Your task to perform on an android device: check android version Image 0: 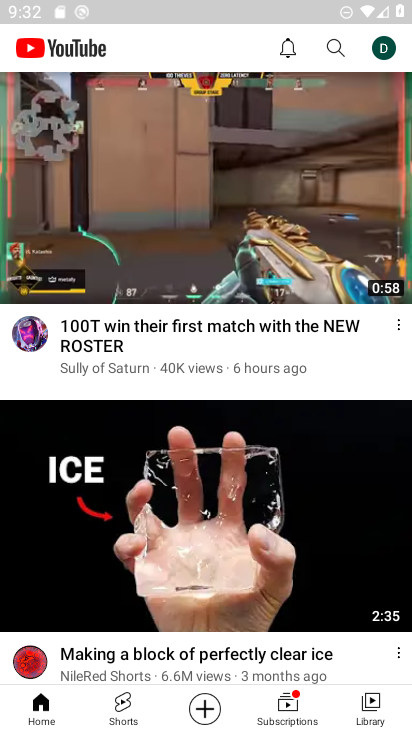
Step 0: press home button
Your task to perform on an android device: check android version Image 1: 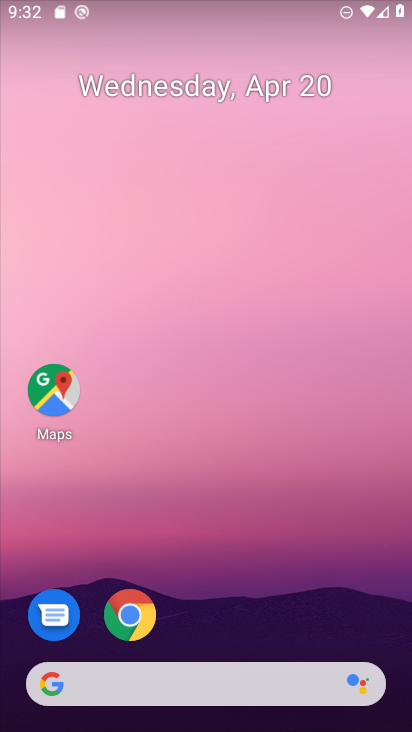
Step 1: drag from (235, 600) to (238, 52)
Your task to perform on an android device: check android version Image 2: 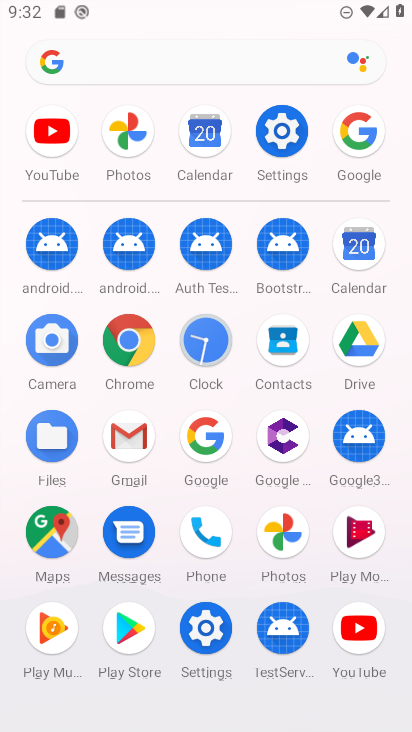
Step 2: click (281, 133)
Your task to perform on an android device: check android version Image 3: 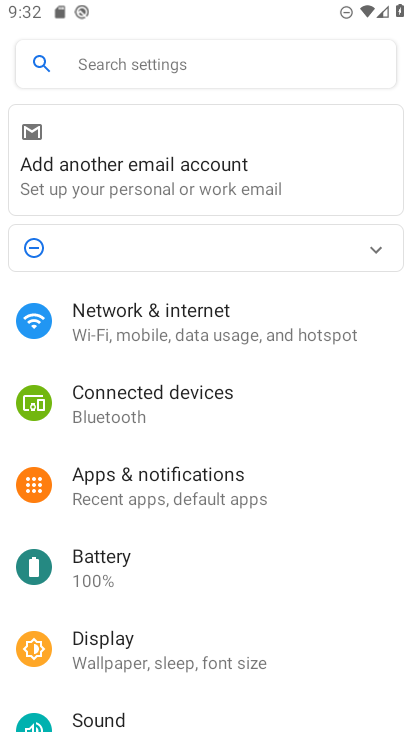
Step 3: drag from (165, 617) to (229, 460)
Your task to perform on an android device: check android version Image 4: 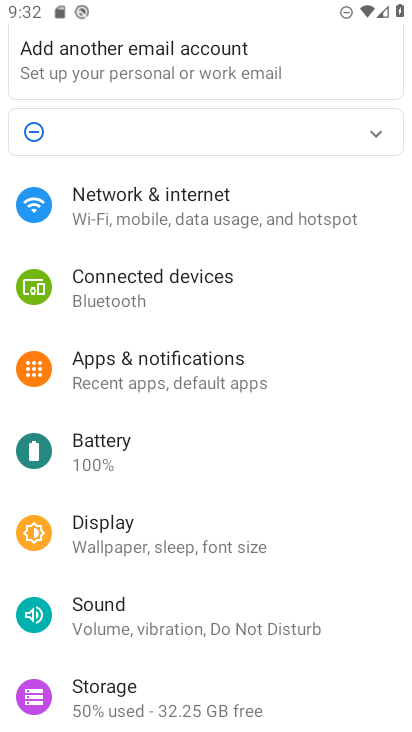
Step 4: drag from (230, 603) to (283, 451)
Your task to perform on an android device: check android version Image 5: 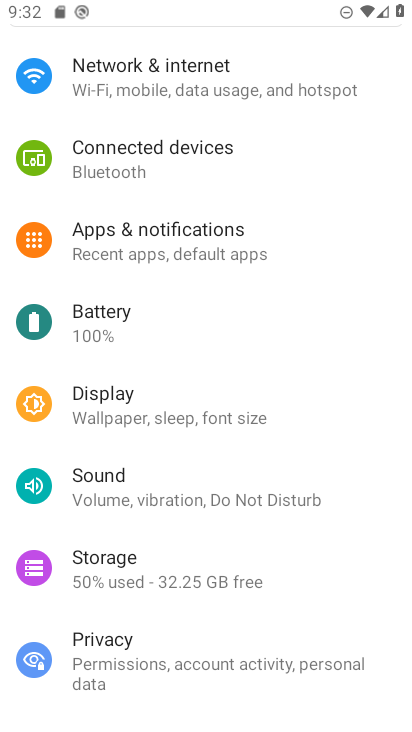
Step 5: drag from (177, 552) to (228, 432)
Your task to perform on an android device: check android version Image 6: 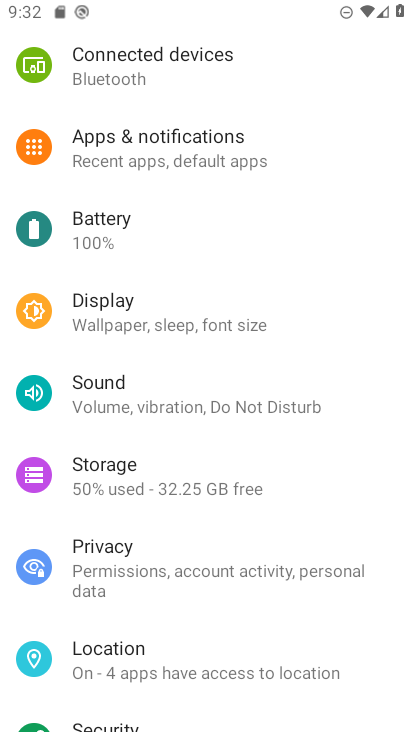
Step 6: drag from (201, 525) to (243, 424)
Your task to perform on an android device: check android version Image 7: 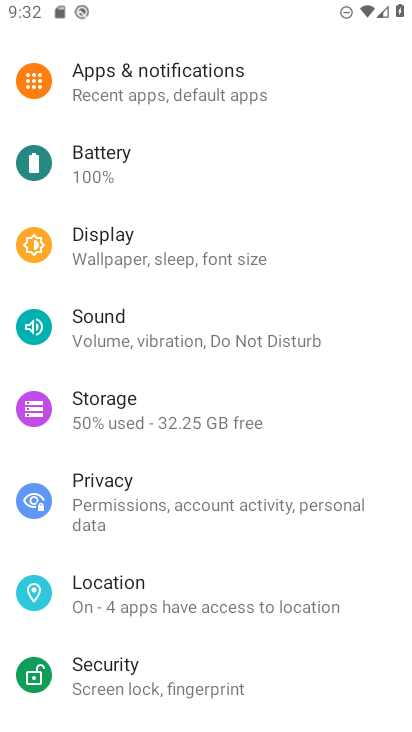
Step 7: drag from (173, 580) to (239, 468)
Your task to perform on an android device: check android version Image 8: 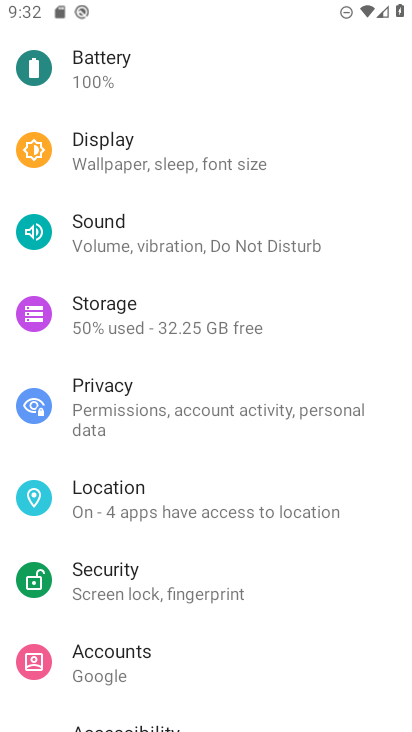
Step 8: drag from (167, 546) to (231, 456)
Your task to perform on an android device: check android version Image 9: 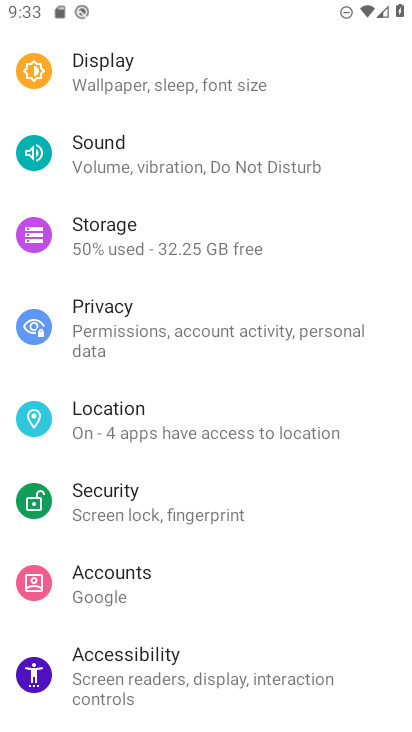
Step 9: drag from (178, 542) to (255, 447)
Your task to perform on an android device: check android version Image 10: 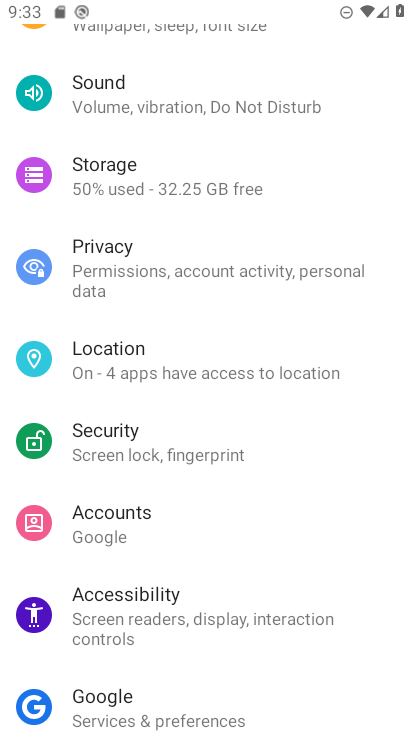
Step 10: drag from (185, 562) to (264, 464)
Your task to perform on an android device: check android version Image 11: 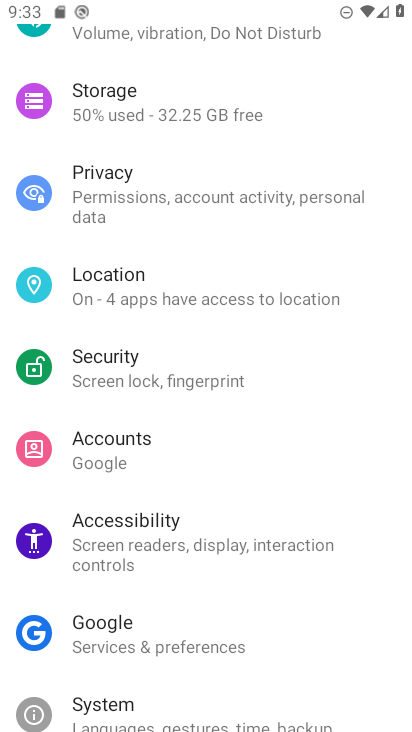
Step 11: drag from (181, 595) to (270, 488)
Your task to perform on an android device: check android version Image 12: 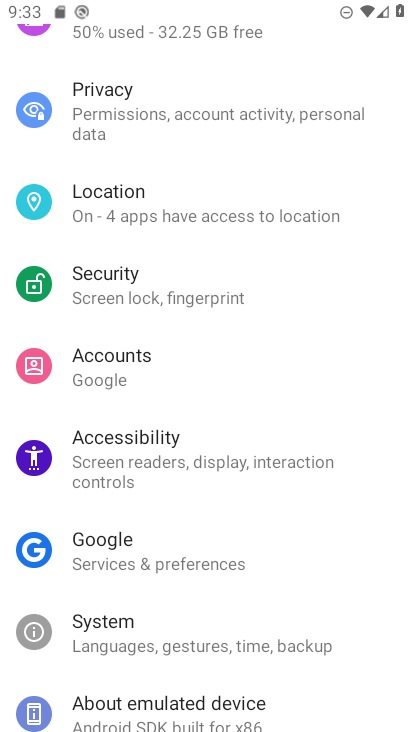
Step 12: drag from (188, 596) to (293, 483)
Your task to perform on an android device: check android version Image 13: 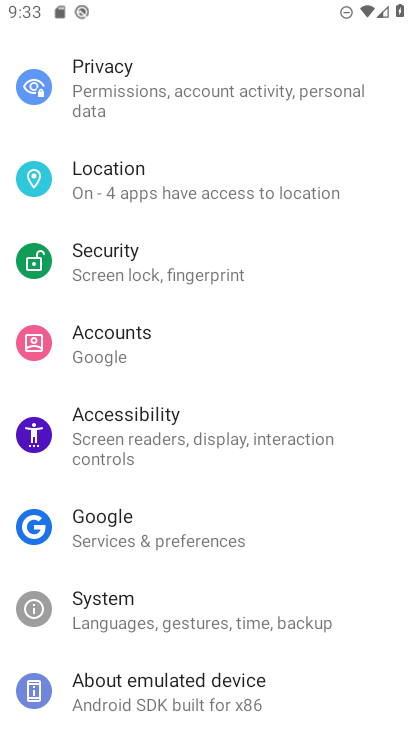
Step 13: click (159, 681)
Your task to perform on an android device: check android version Image 14: 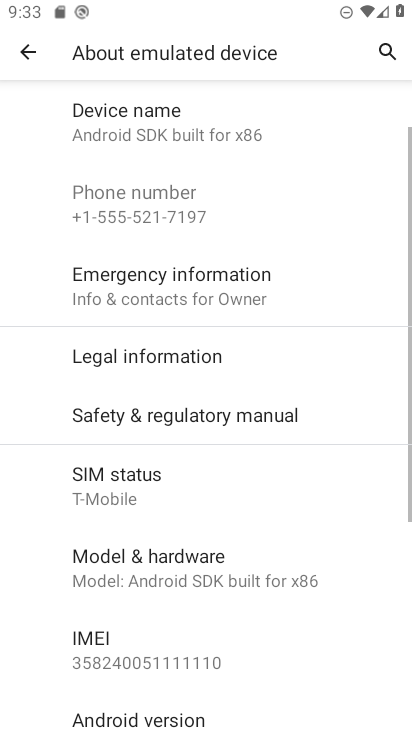
Step 14: drag from (230, 625) to (309, 497)
Your task to perform on an android device: check android version Image 15: 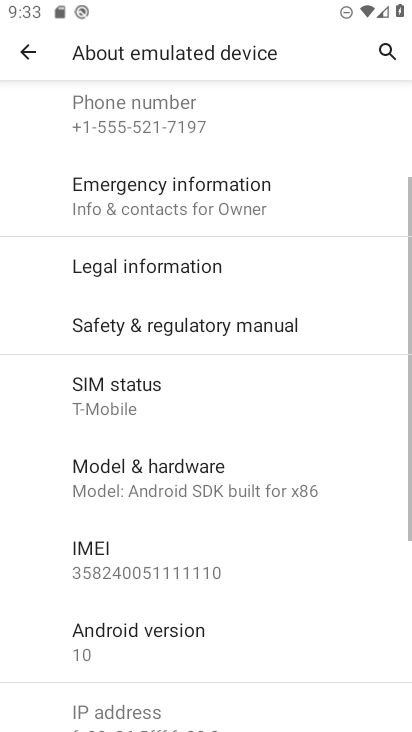
Step 15: click (169, 639)
Your task to perform on an android device: check android version Image 16: 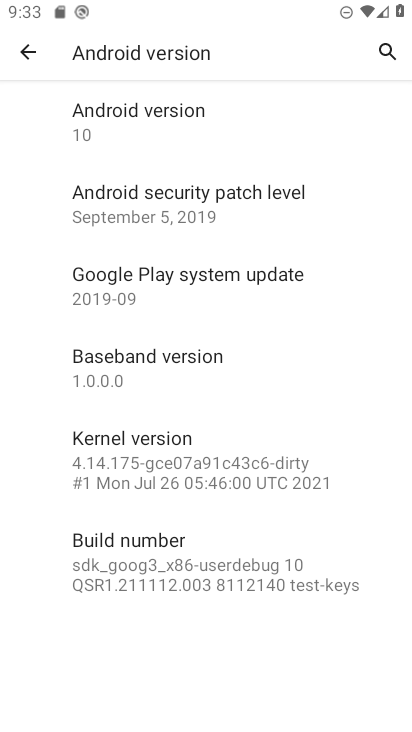
Step 16: task complete